Your task to perform on an android device: Open Chrome and go to the settings page Image 0: 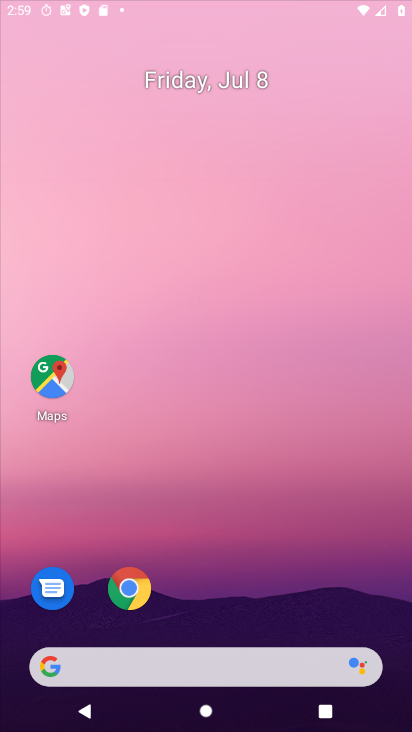
Step 0: press home button
Your task to perform on an android device: Open Chrome and go to the settings page Image 1: 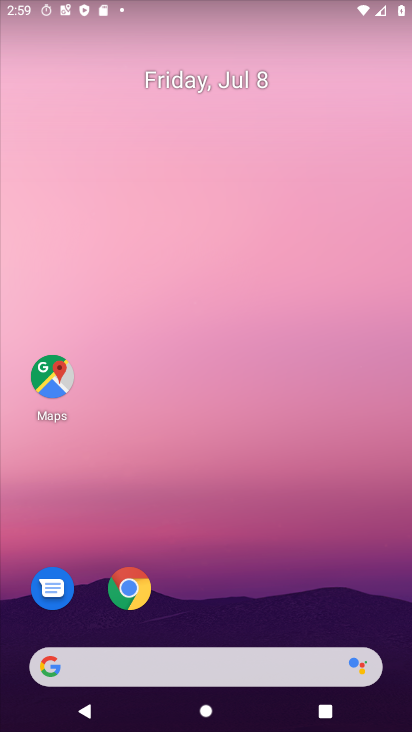
Step 1: drag from (228, 630) to (221, 78)
Your task to perform on an android device: Open Chrome and go to the settings page Image 2: 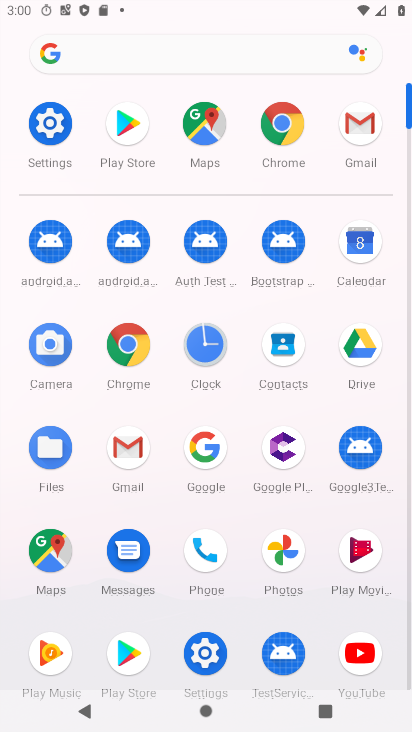
Step 2: click (286, 127)
Your task to perform on an android device: Open Chrome and go to the settings page Image 3: 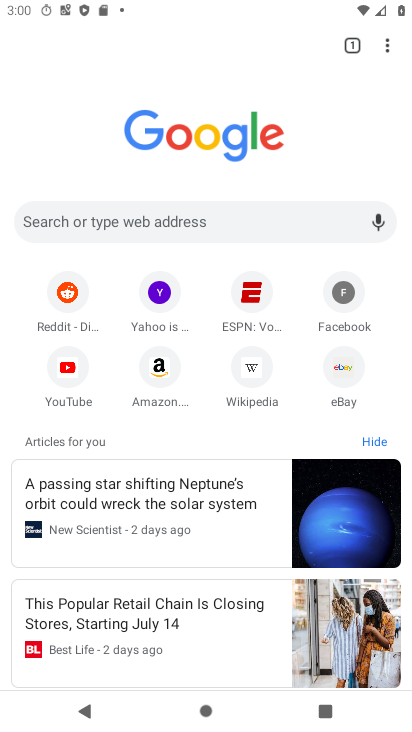
Step 3: click (388, 53)
Your task to perform on an android device: Open Chrome and go to the settings page Image 4: 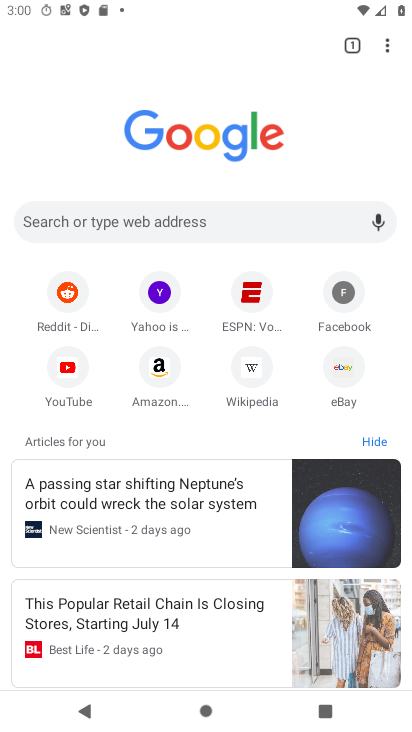
Step 4: task complete